Your task to perform on an android device: Open Amazon Image 0: 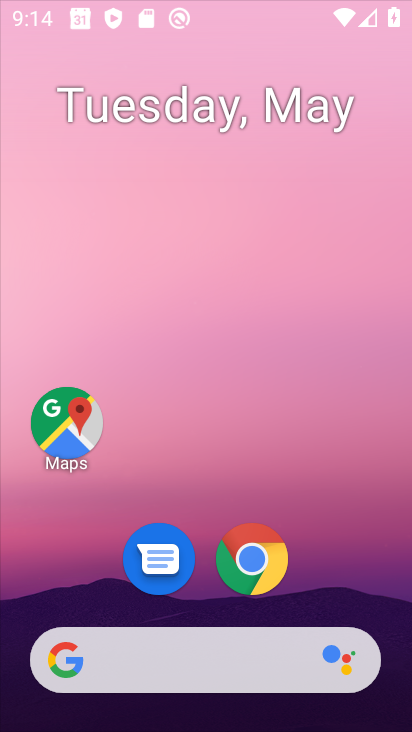
Step 0: drag from (335, 564) to (183, 19)
Your task to perform on an android device: Open Amazon Image 1: 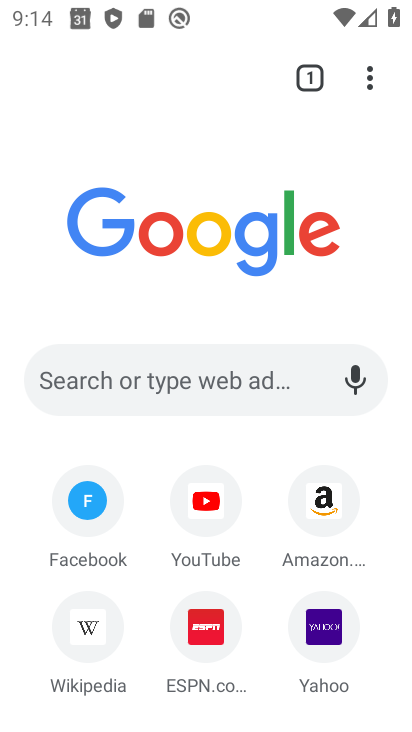
Step 1: click (329, 520)
Your task to perform on an android device: Open Amazon Image 2: 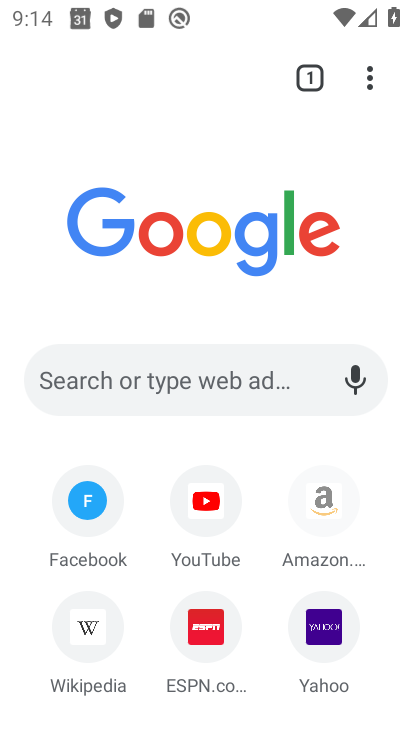
Step 2: click (321, 507)
Your task to perform on an android device: Open Amazon Image 3: 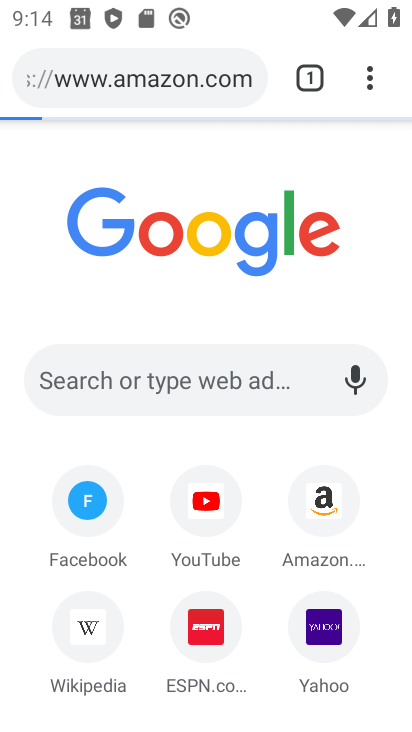
Step 3: click (322, 503)
Your task to perform on an android device: Open Amazon Image 4: 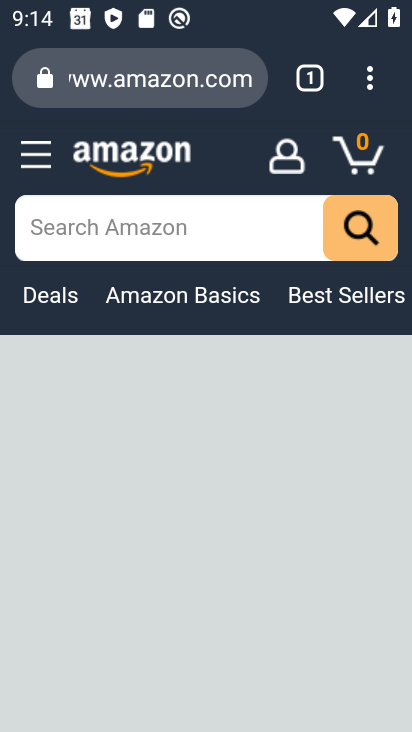
Step 4: task complete